Your task to perform on an android device: Clear the cart on amazon. Search for logitech g903 on amazon, select the first entry, and add it to the cart. Image 0: 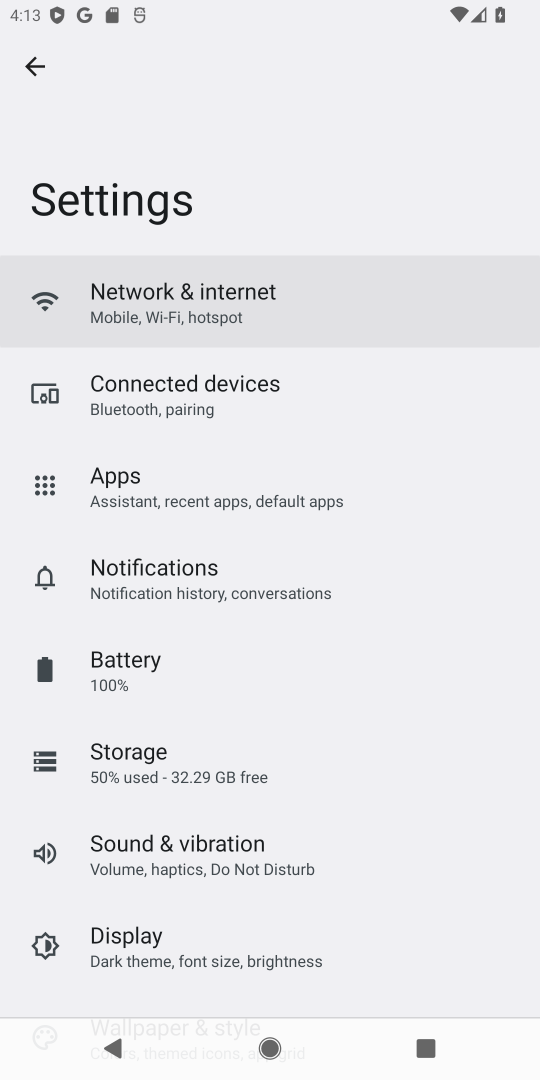
Step 0: press home button
Your task to perform on an android device: Clear the cart on amazon. Search for logitech g903 on amazon, select the first entry, and add it to the cart. Image 1: 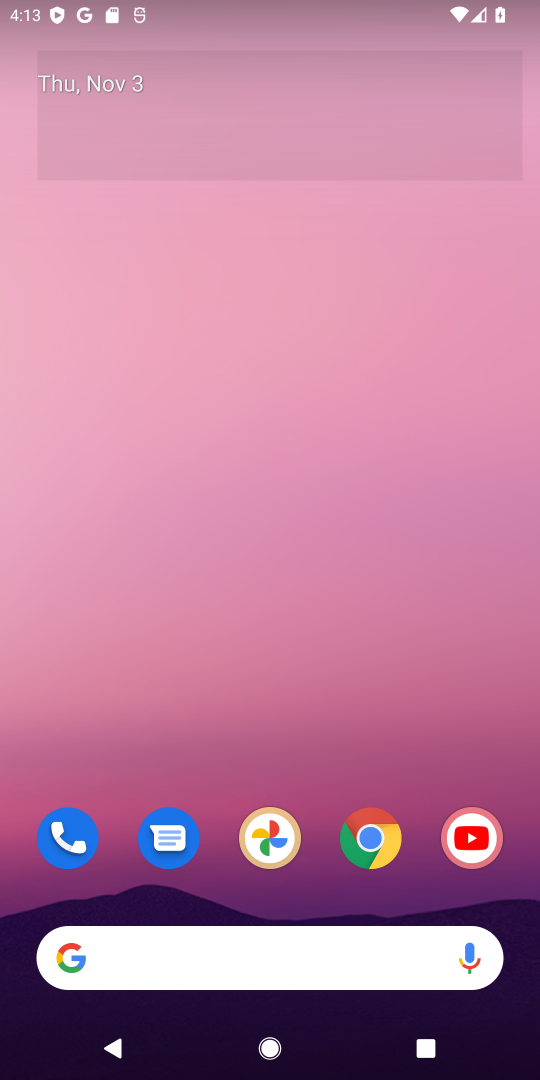
Step 1: click (67, 954)
Your task to perform on an android device: Clear the cart on amazon. Search for logitech g903 on amazon, select the first entry, and add it to the cart. Image 2: 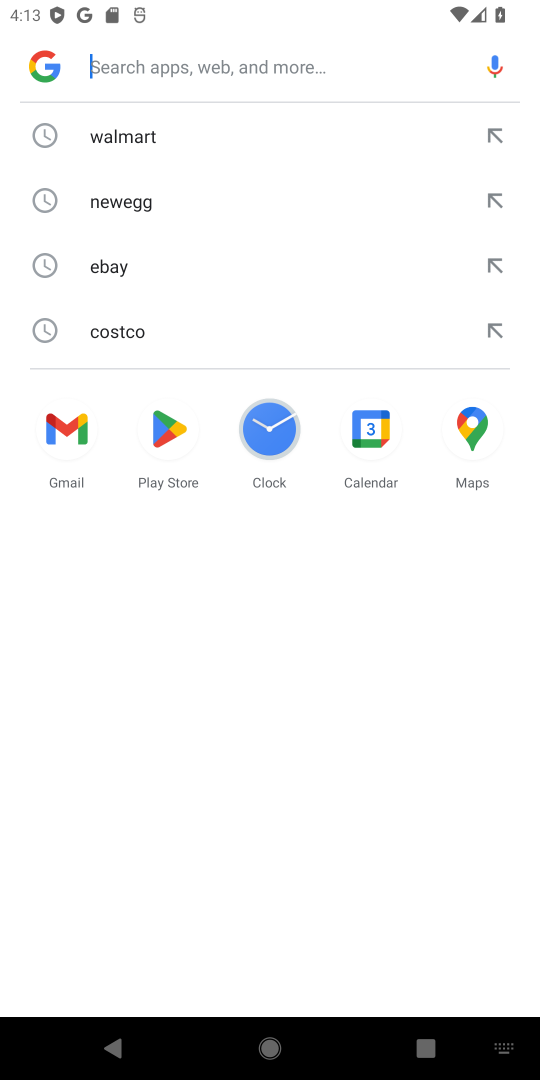
Step 2: type "amazon"
Your task to perform on an android device: Clear the cart on amazon. Search for logitech g903 on amazon, select the first entry, and add it to the cart. Image 3: 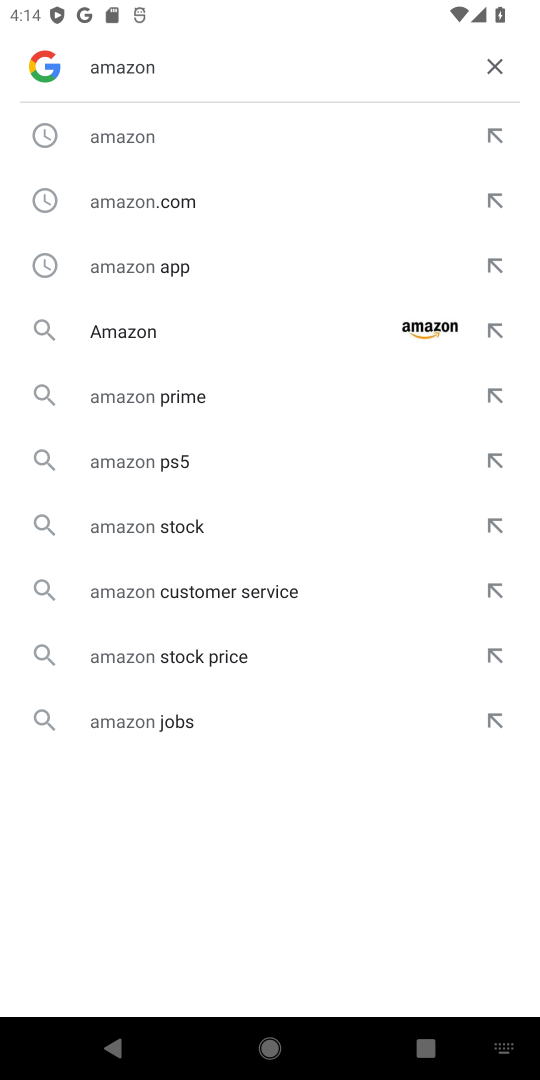
Step 3: click (230, 327)
Your task to perform on an android device: Clear the cart on amazon. Search for logitech g903 on amazon, select the first entry, and add it to the cart. Image 4: 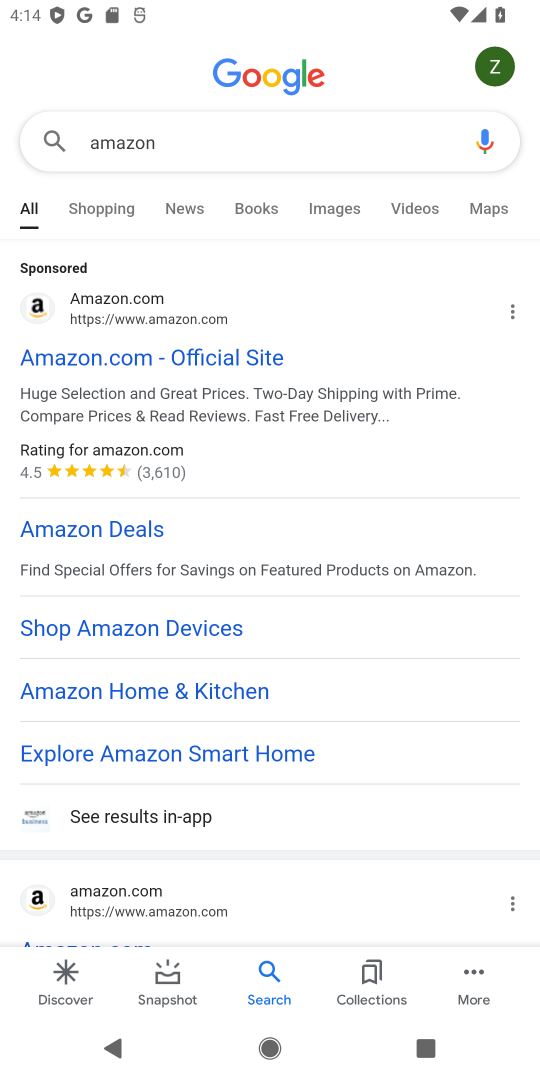
Step 4: click (238, 358)
Your task to perform on an android device: Clear the cart on amazon. Search for logitech g903 on amazon, select the first entry, and add it to the cart. Image 5: 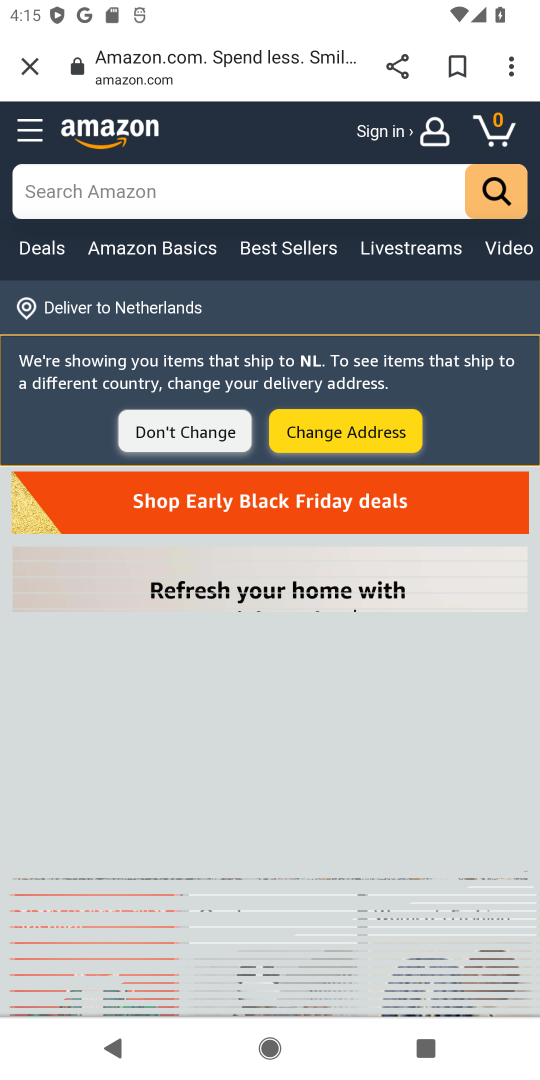
Step 5: click (344, 185)
Your task to perform on an android device: Clear the cart on amazon. Search for logitech g903 on amazon, select the first entry, and add it to the cart. Image 6: 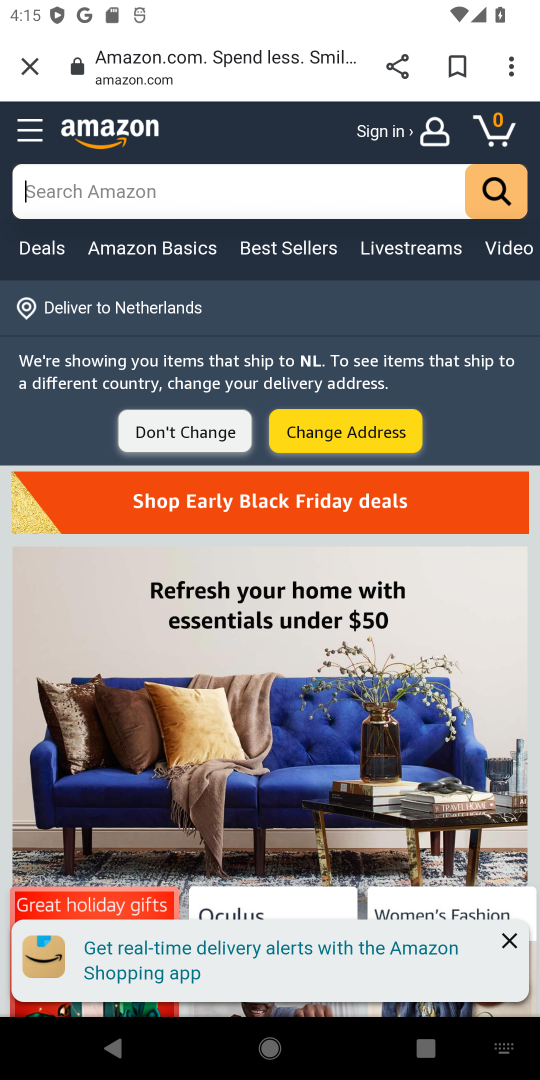
Step 6: type "logitech g903"
Your task to perform on an android device: Clear the cart on amazon. Search for logitech g903 on amazon, select the first entry, and add it to the cart. Image 7: 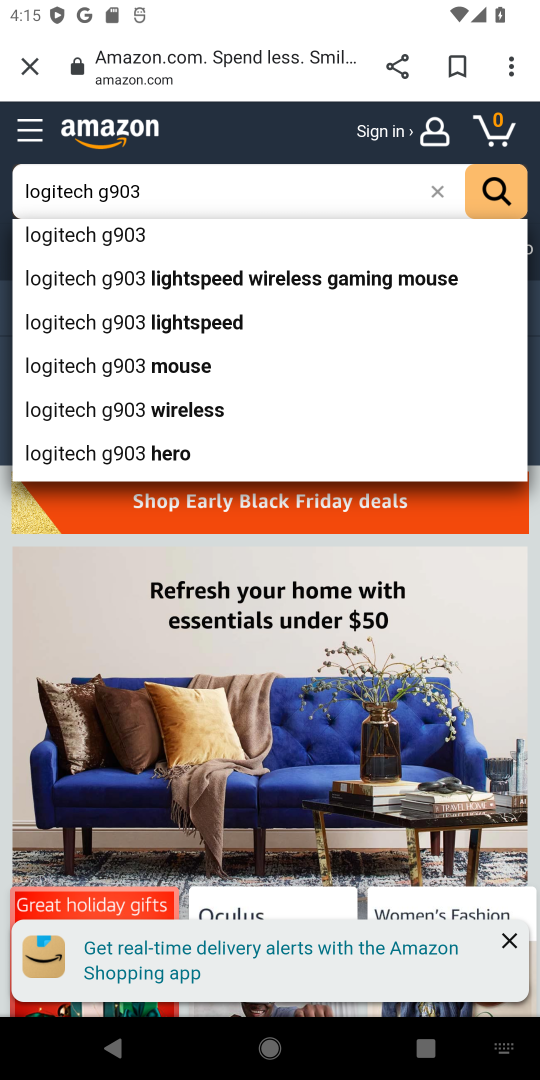
Step 7: click (168, 235)
Your task to perform on an android device: Clear the cart on amazon. Search for logitech g903 on amazon, select the first entry, and add it to the cart. Image 8: 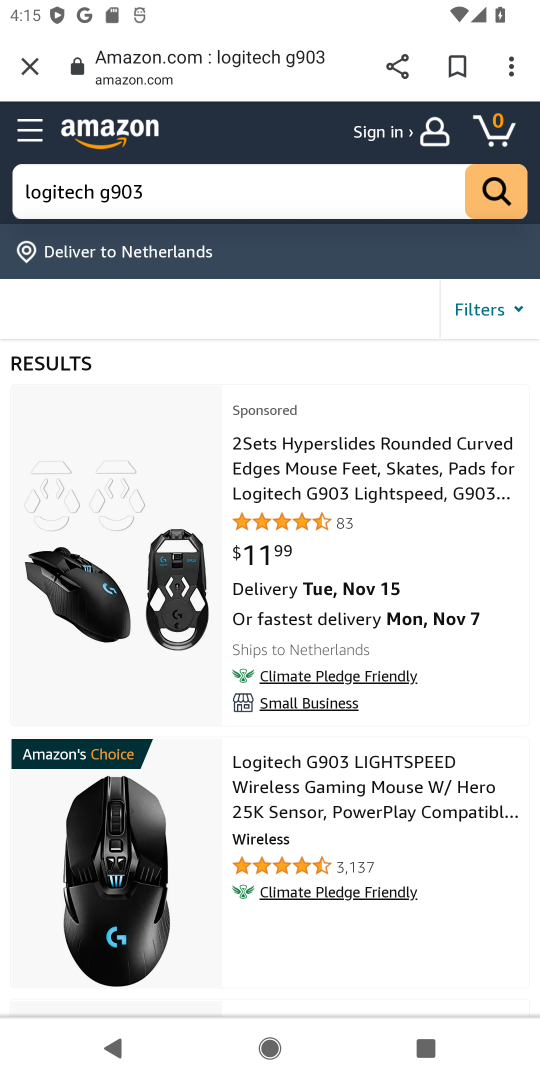
Step 8: click (386, 477)
Your task to perform on an android device: Clear the cart on amazon. Search for logitech g903 on amazon, select the first entry, and add it to the cart. Image 9: 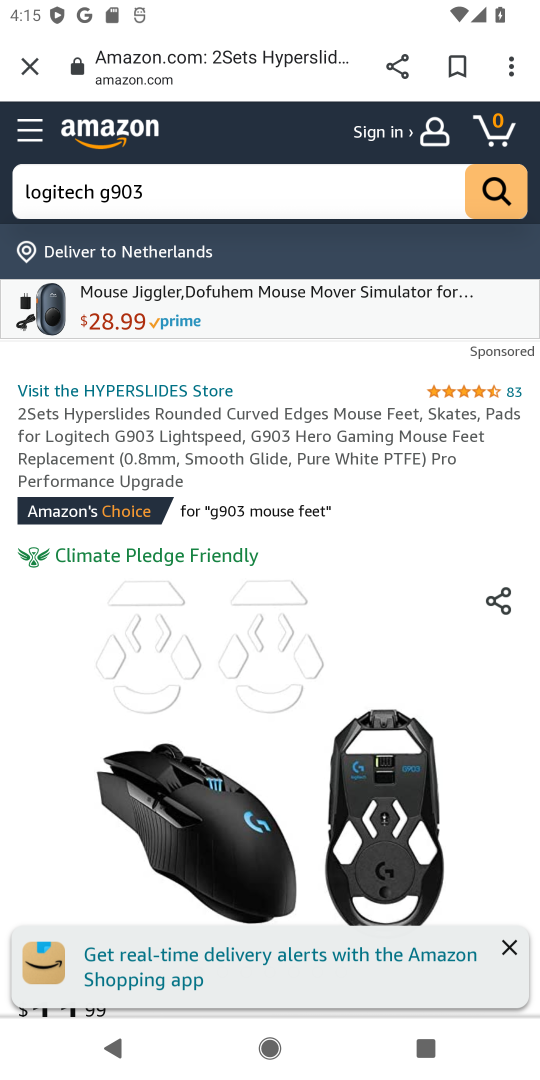
Step 9: drag from (462, 881) to (408, 572)
Your task to perform on an android device: Clear the cart on amazon. Search for logitech g903 on amazon, select the first entry, and add it to the cart. Image 10: 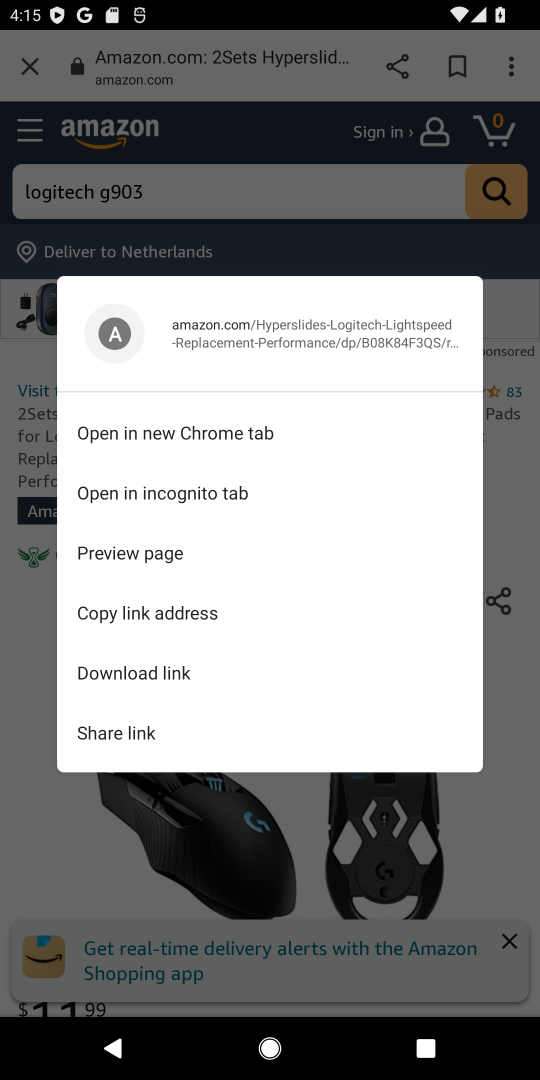
Step 10: click (509, 525)
Your task to perform on an android device: Clear the cart on amazon. Search for logitech g903 on amazon, select the first entry, and add it to the cart. Image 11: 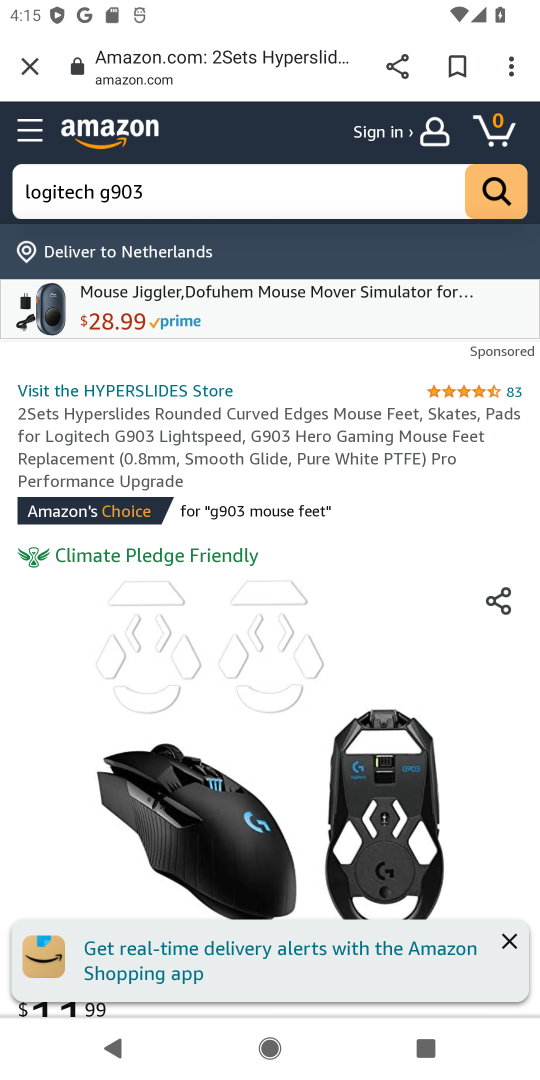
Step 11: drag from (221, 796) to (176, 375)
Your task to perform on an android device: Clear the cart on amazon. Search for logitech g903 on amazon, select the first entry, and add it to the cart. Image 12: 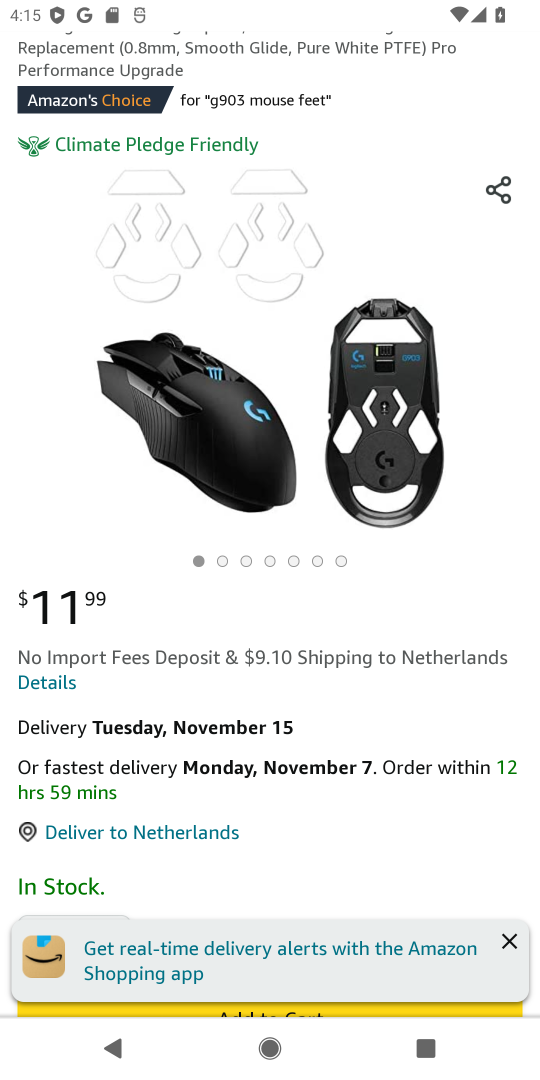
Step 12: drag from (287, 833) to (269, 430)
Your task to perform on an android device: Clear the cart on amazon. Search for logitech g903 on amazon, select the first entry, and add it to the cart. Image 13: 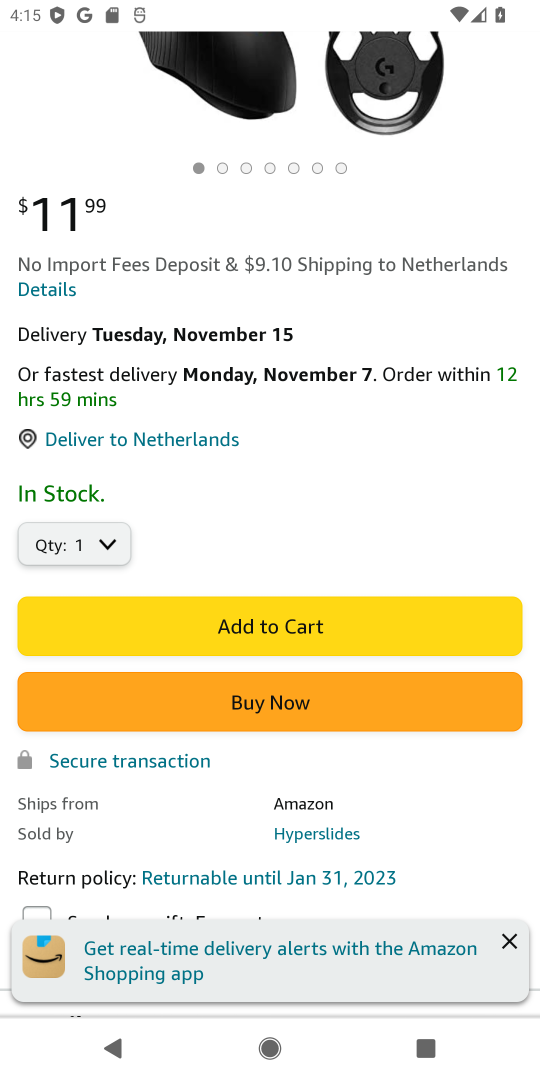
Step 13: click (265, 629)
Your task to perform on an android device: Clear the cart on amazon. Search for logitech g903 on amazon, select the first entry, and add it to the cart. Image 14: 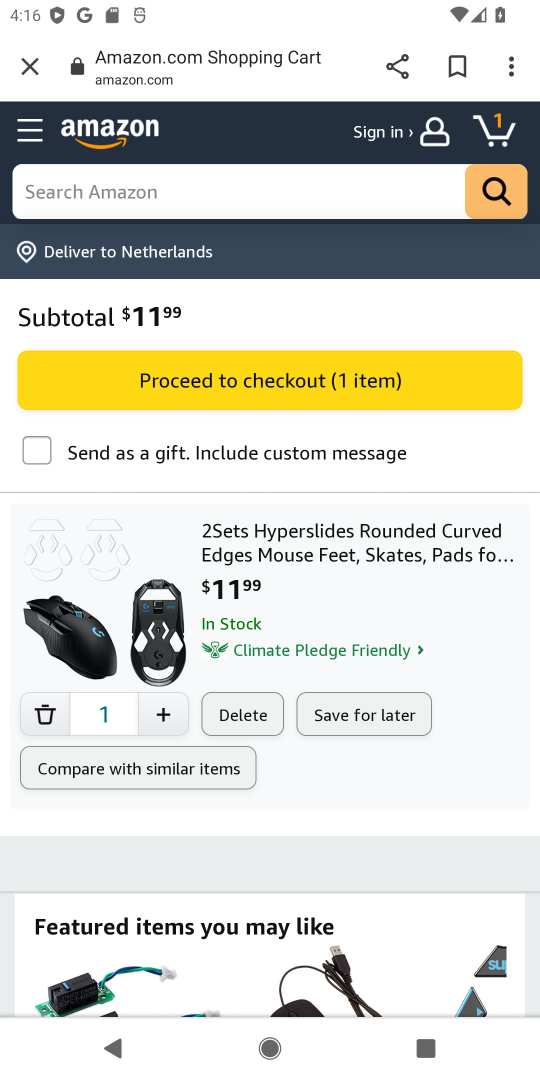
Step 14: task complete